Your task to perform on an android device: turn on the 24-hour format for clock Image 0: 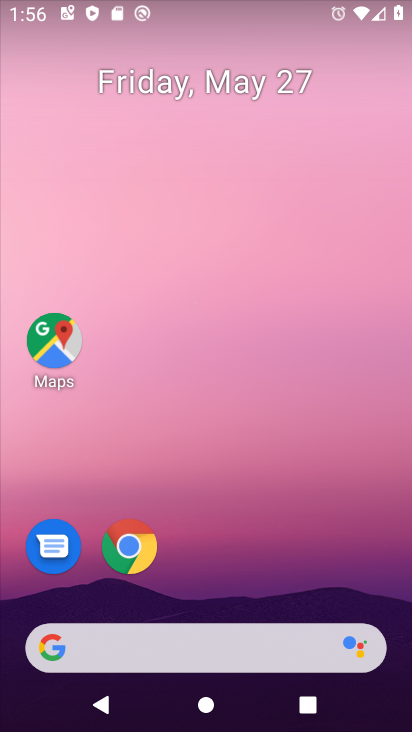
Step 0: press home button
Your task to perform on an android device: turn on the 24-hour format for clock Image 1: 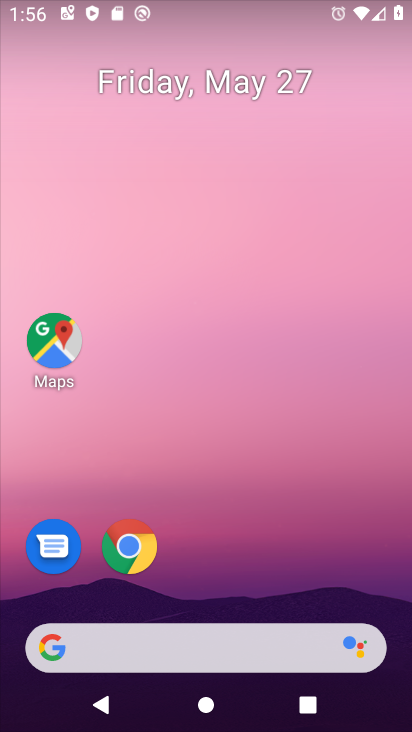
Step 1: drag from (281, 670) to (241, 142)
Your task to perform on an android device: turn on the 24-hour format for clock Image 2: 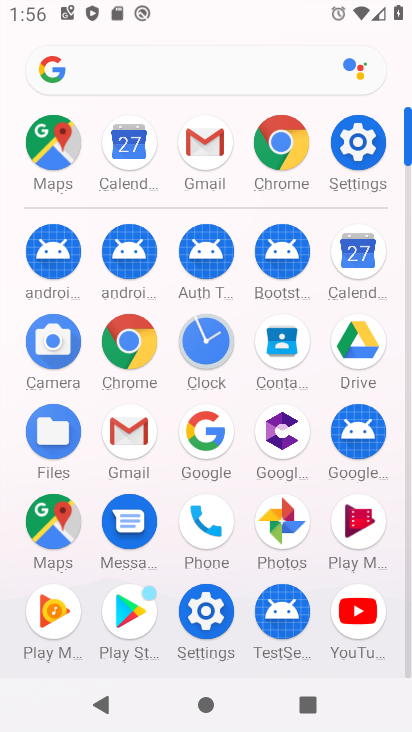
Step 2: click (200, 324)
Your task to perform on an android device: turn on the 24-hour format for clock Image 3: 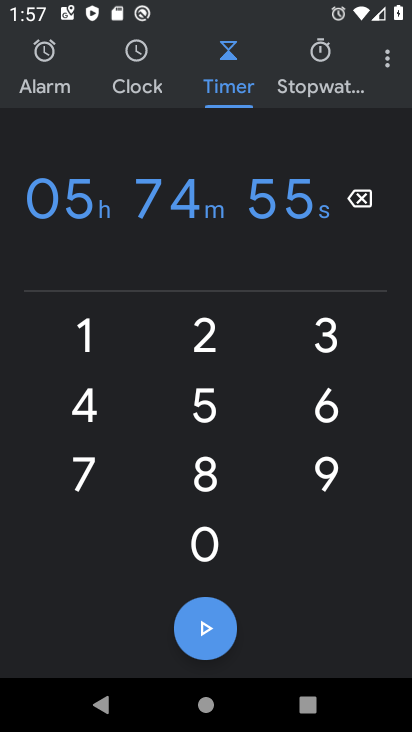
Step 3: click (377, 78)
Your task to perform on an android device: turn on the 24-hour format for clock Image 4: 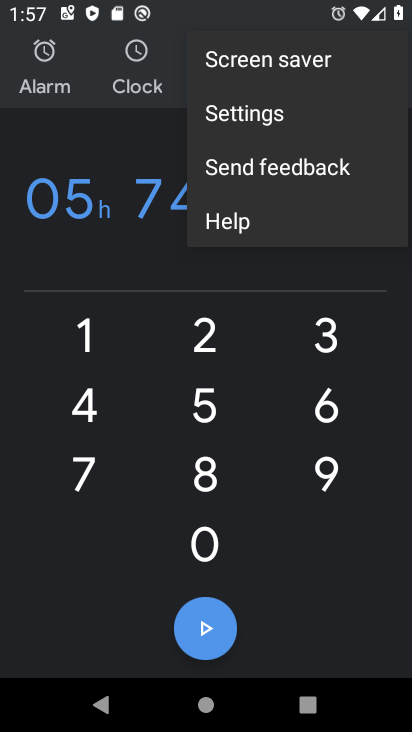
Step 4: click (256, 114)
Your task to perform on an android device: turn on the 24-hour format for clock Image 5: 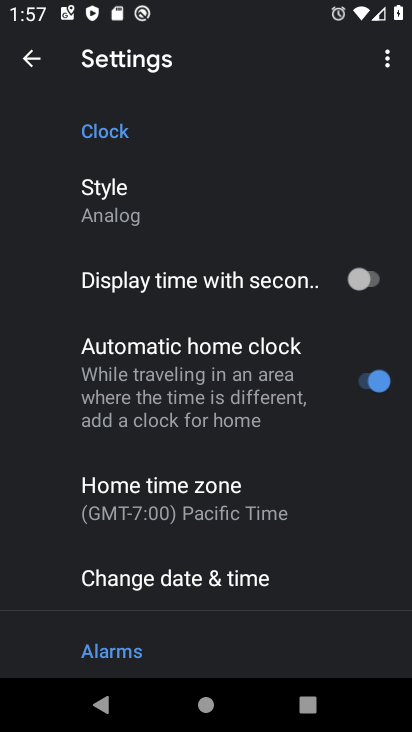
Step 5: click (176, 573)
Your task to perform on an android device: turn on the 24-hour format for clock Image 6: 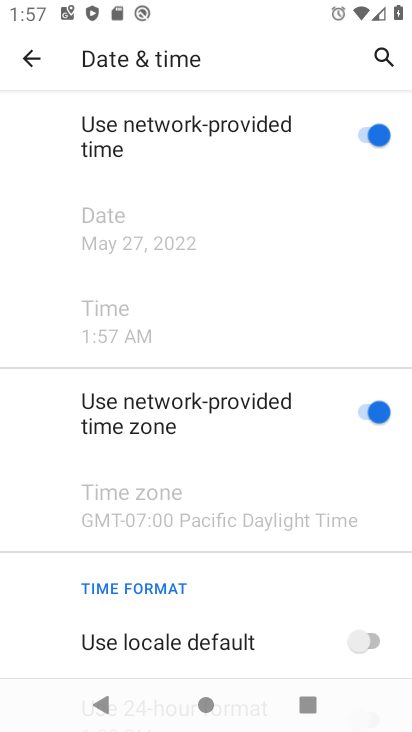
Step 6: drag from (242, 517) to (220, 320)
Your task to perform on an android device: turn on the 24-hour format for clock Image 7: 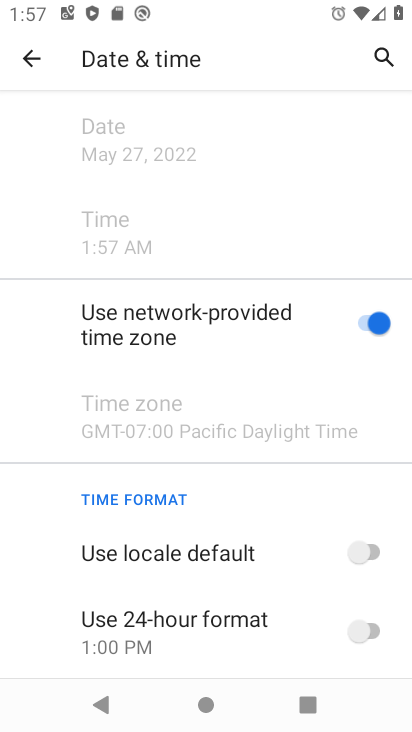
Step 7: click (346, 550)
Your task to perform on an android device: turn on the 24-hour format for clock Image 8: 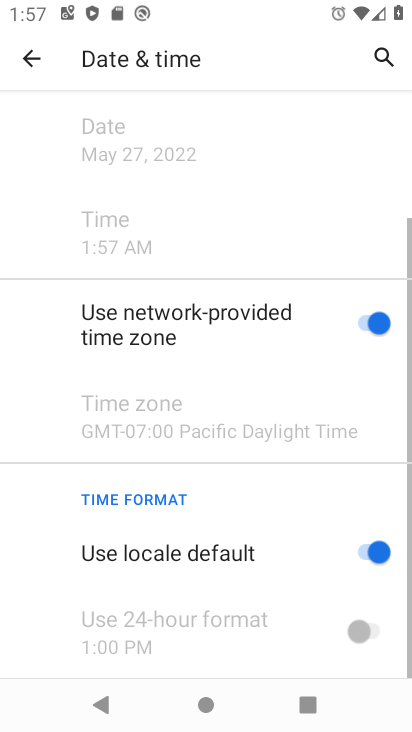
Step 8: click (363, 623)
Your task to perform on an android device: turn on the 24-hour format for clock Image 9: 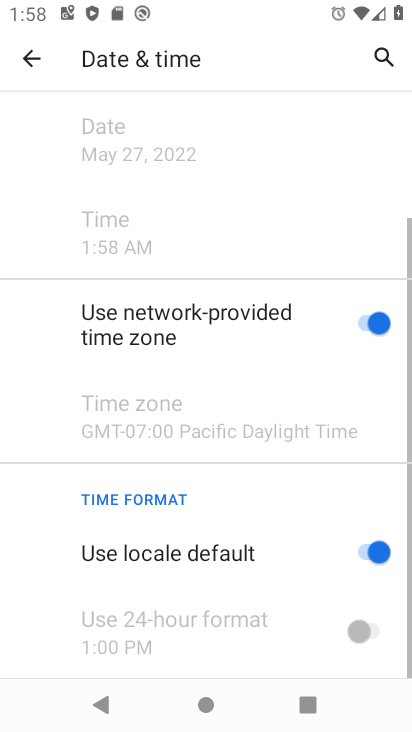
Step 9: click (358, 547)
Your task to perform on an android device: turn on the 24-hour format for clock Image 10: 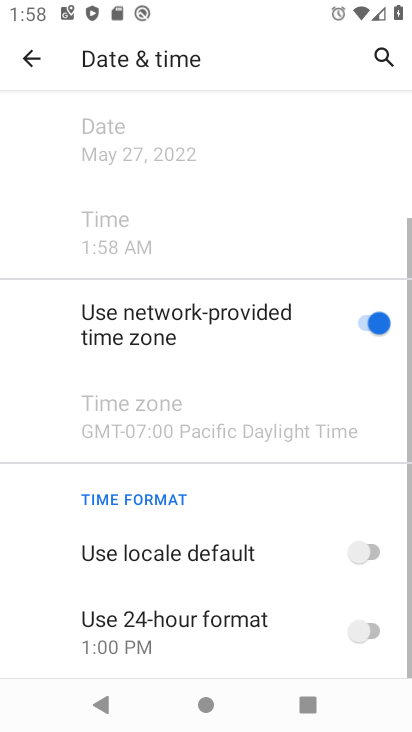
Step 10: click (368, 620)
Your task to perform on an android device: turn on the 24-hour format for clock Image 11: 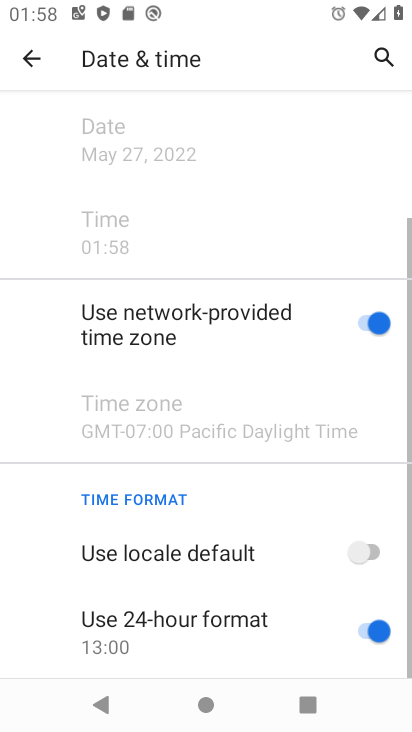
Step 11: task complete